Your task to perform on an android device: open wifi settings Image 0: 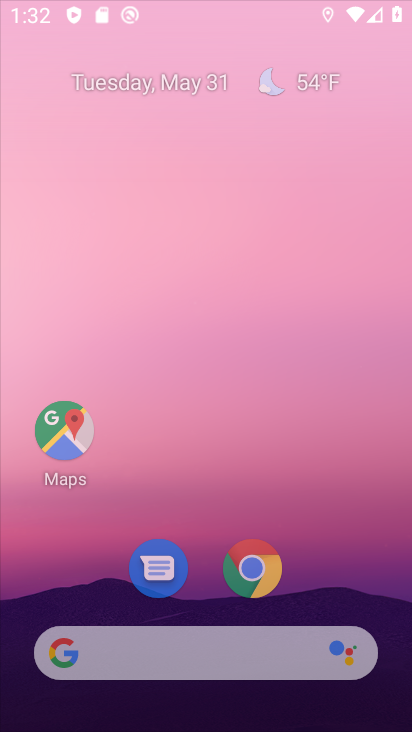
Step 0: click (334, 123)
Your task to perform on an android device: open wifi settings Image 1: 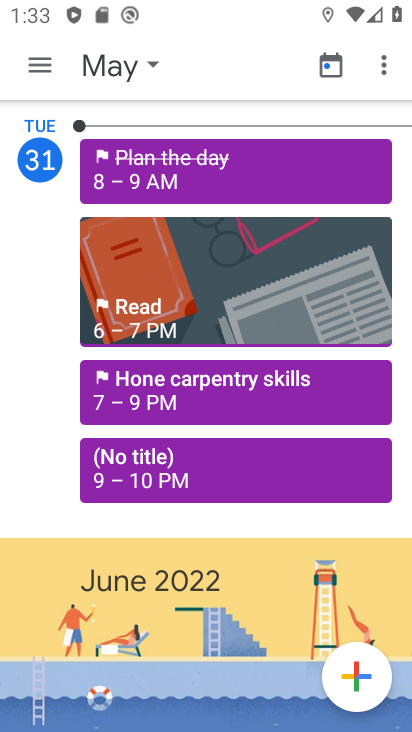
Step 1: press home button
Your task to perform on an android device: open wifi settings Image 2: 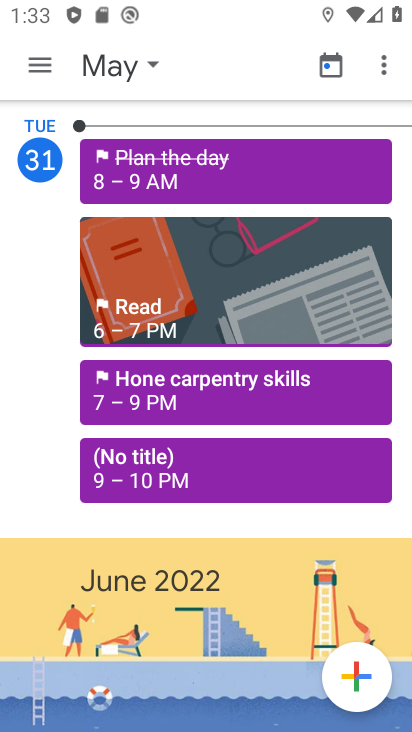
Step 2: drag from (153, 330) to (204, 90)
Your task to perform on an android device: open wifi settings Image 3: 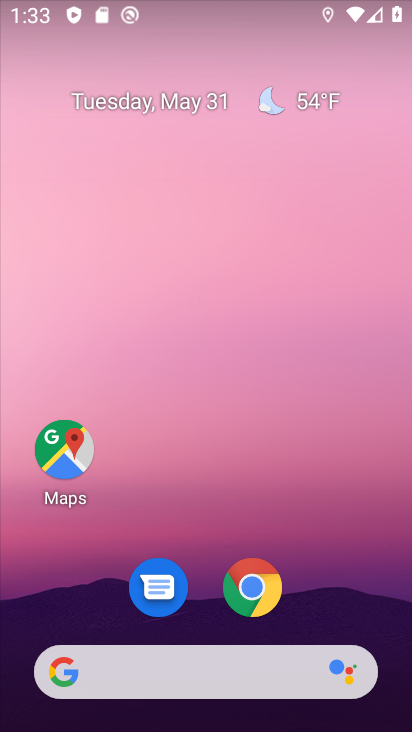
Step 3: drag from (198, 513) to (163, 1)
Your task to perform on an android device: open wifi settings Image 4: 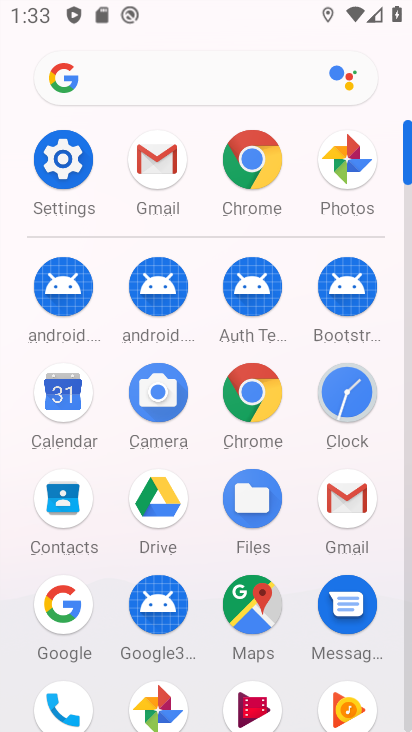
Step 4: click (68, 161)
Your task to perform on an android device: open wifi settings Image 5: 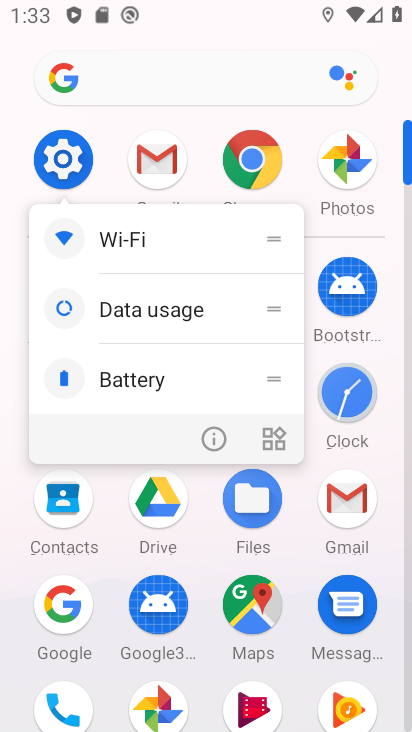
Step 5: click (130, 233)
Your task to perform on an android device: open wifi settings Image 6: 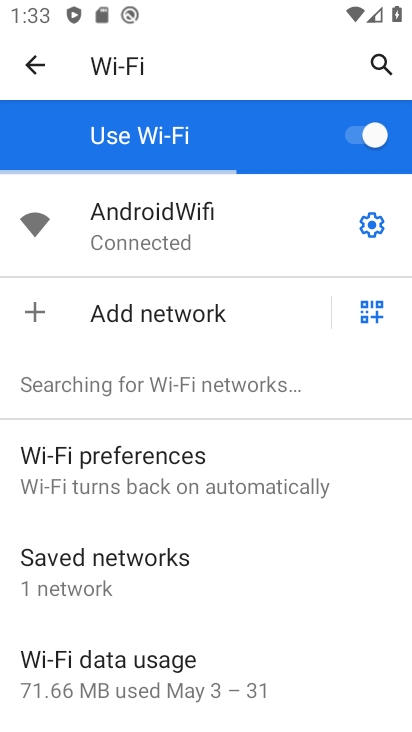
Step 6: click (385, 217)
Your task to perform on an android device: open wifi settings Image 7: 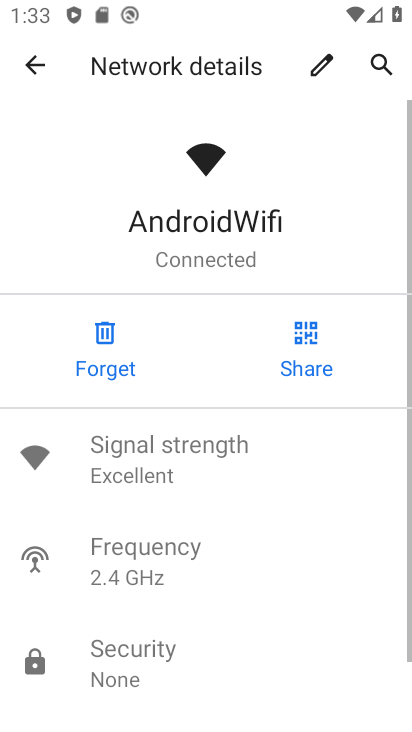
Step 7: task complete